Your task to perform on an android device: open app "Pinterest" (install if not already installed) Image 0: 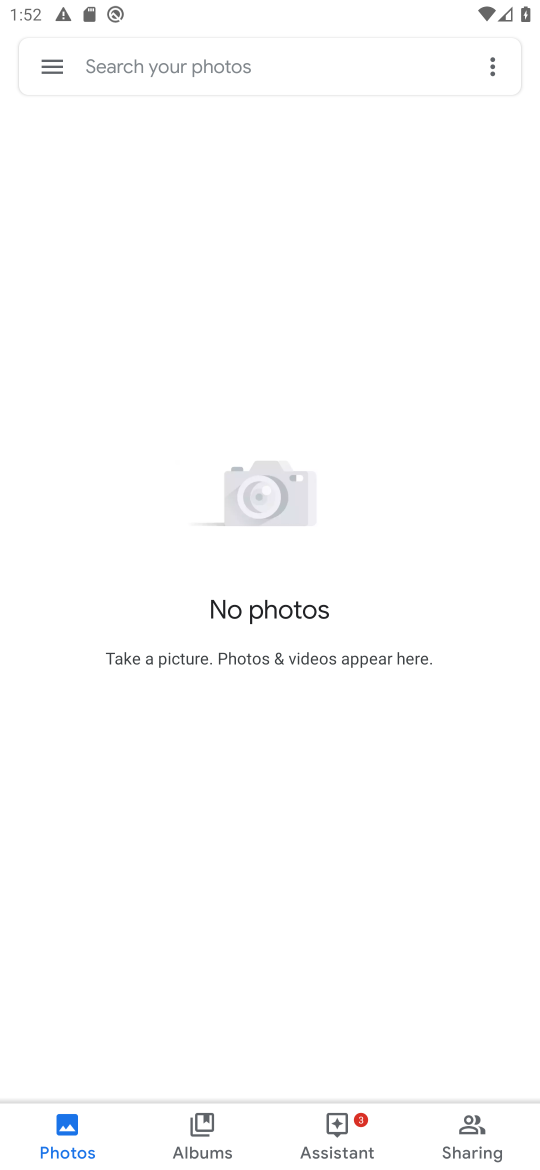
Step 0: press home button
Your task to perform on an android device: open app "Pinterest" (install if not already installed) Image 1: 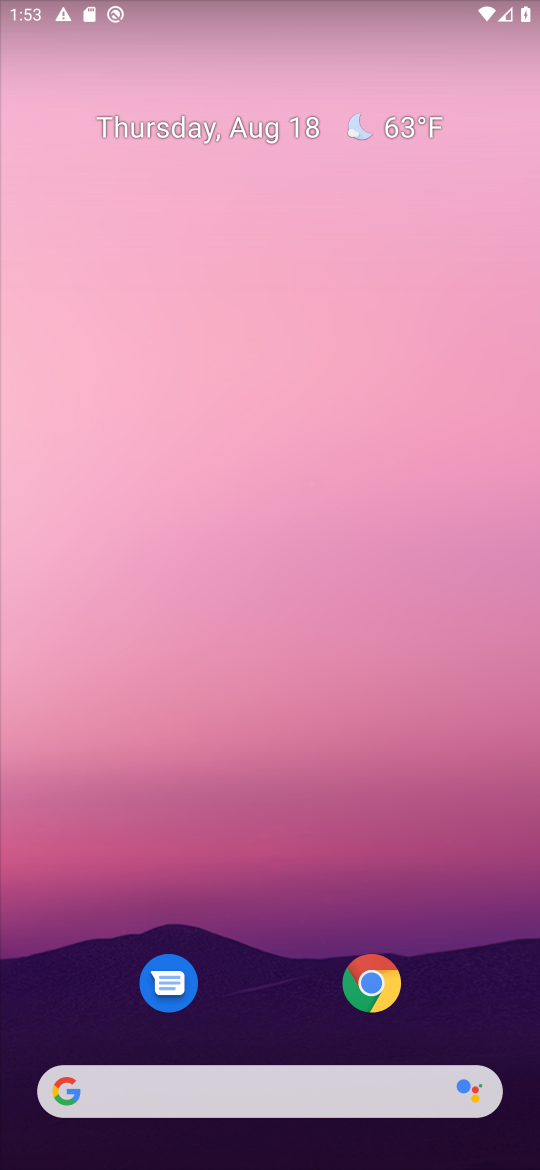
Step 1: drag from (465, 907) to (457, 338)
Your task to perform on an android device: open app "Pinterest" (install if not already installed) Image 2: 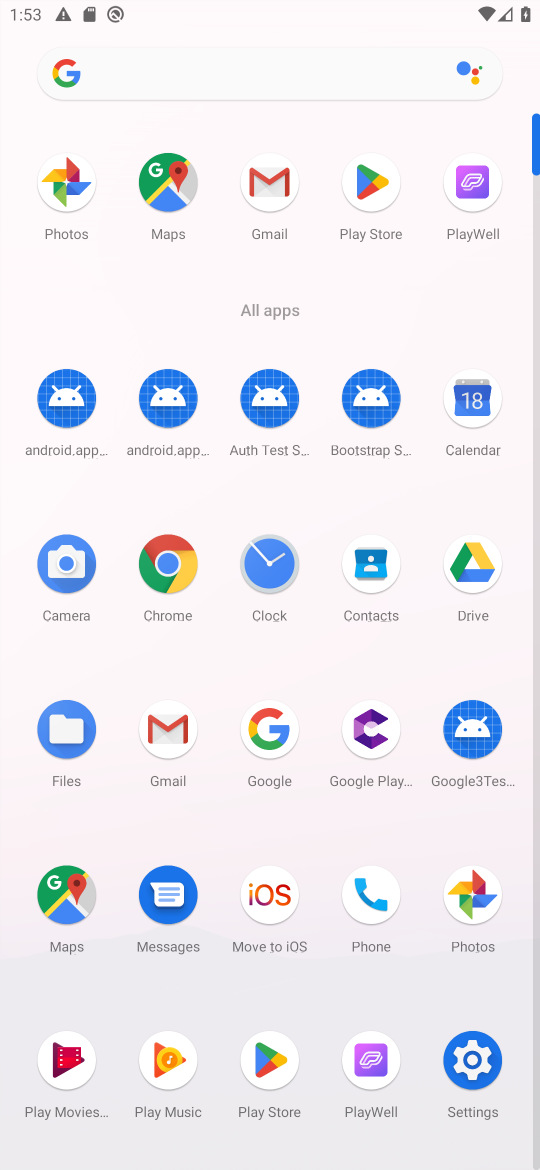
Step 2: click (273, 1054)
Your task to perform on an android device: open app "Pinterest" (install if not already installed) Image 3: 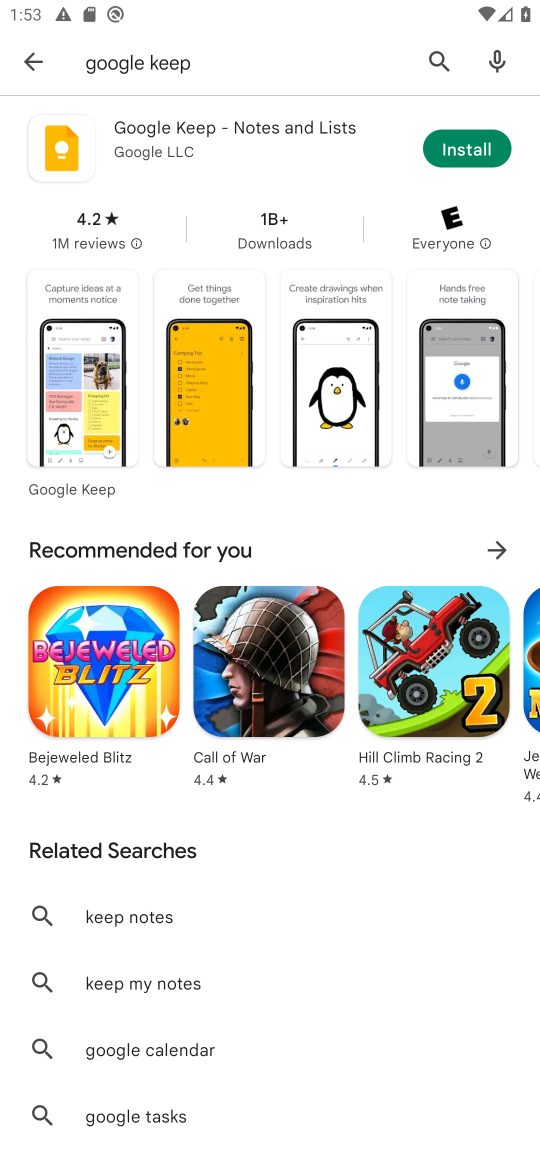
Step 3: click (440, 49)
Your task to perform on an android device: open app "Pinterest" (install if not already installed) Image 4: 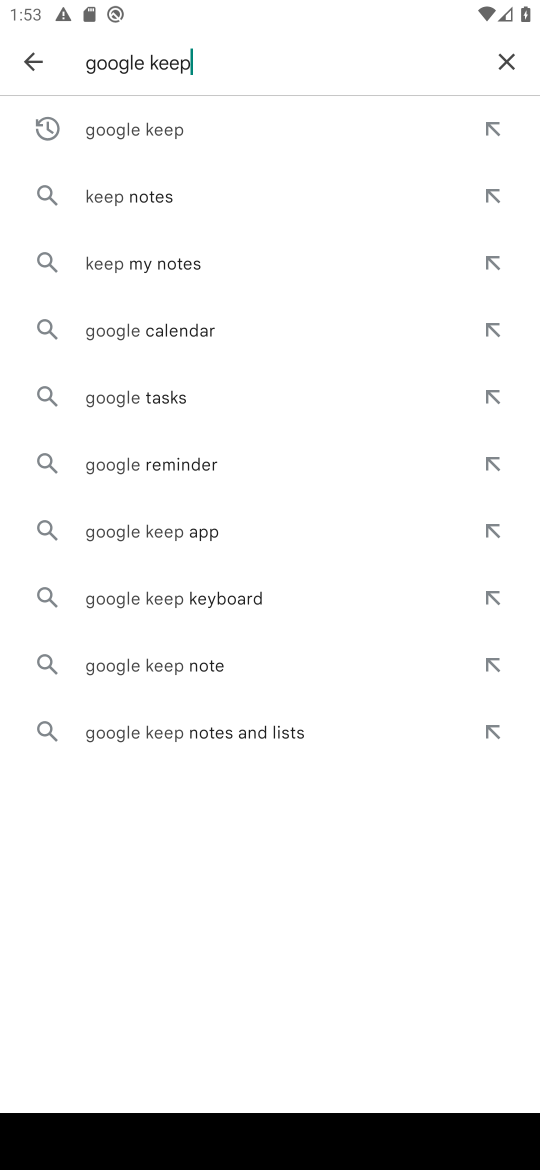
Step 4: click (514, 58)
Your task to perform on an android device: open app "Pinterest" (install if not already installed) Image 5: 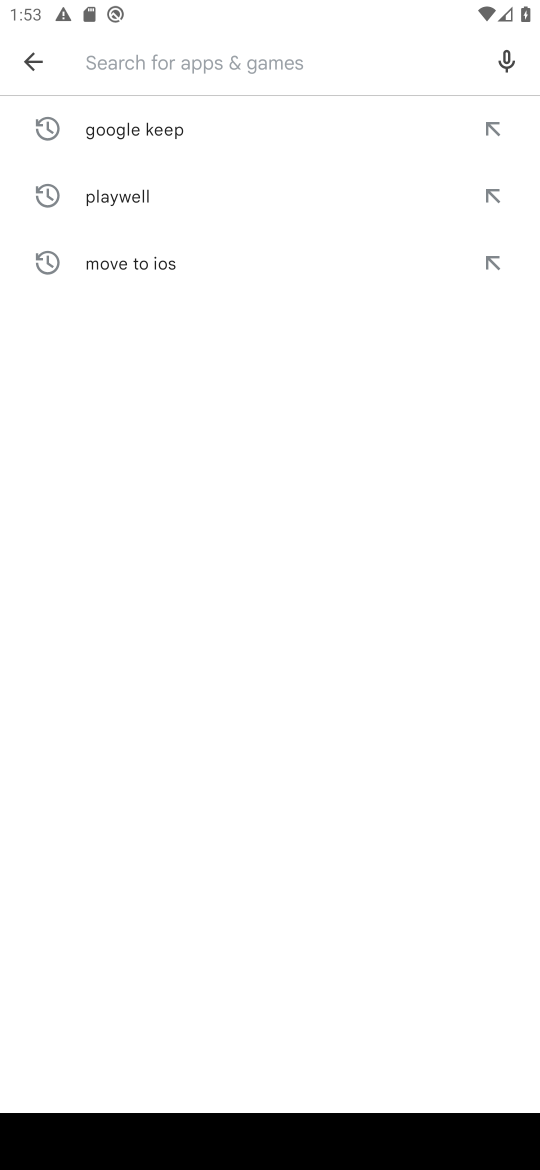
Step 5: type "pinterest"
Your task to perform on an android device: open app "Pinterest" (install if not already installed) Image 6: 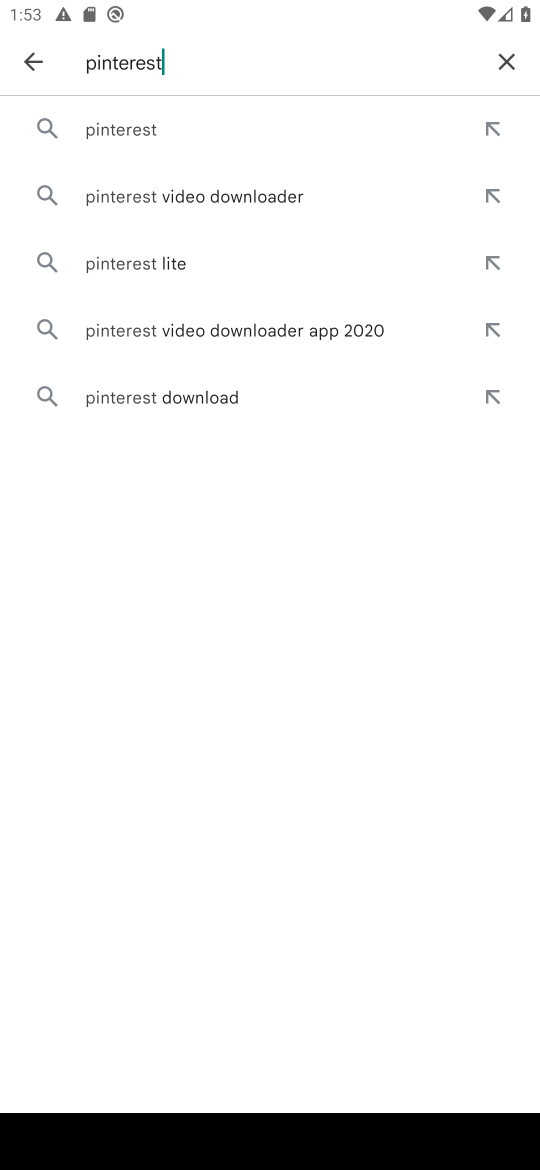
Step 6: click (138, 135)
Your task to perform on an android device: open app "Pinterest" (install if not already installed) Image 7: 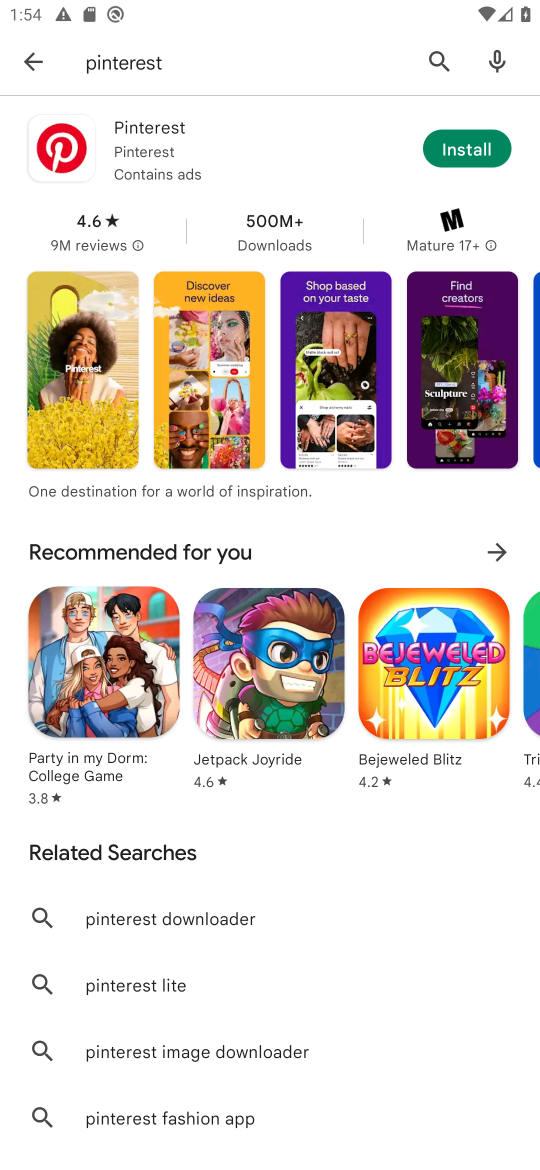
Step 7: click (468, 150)
Your task to perform on an android device: open app "Pinterest" (install if not already installed) Image 8: 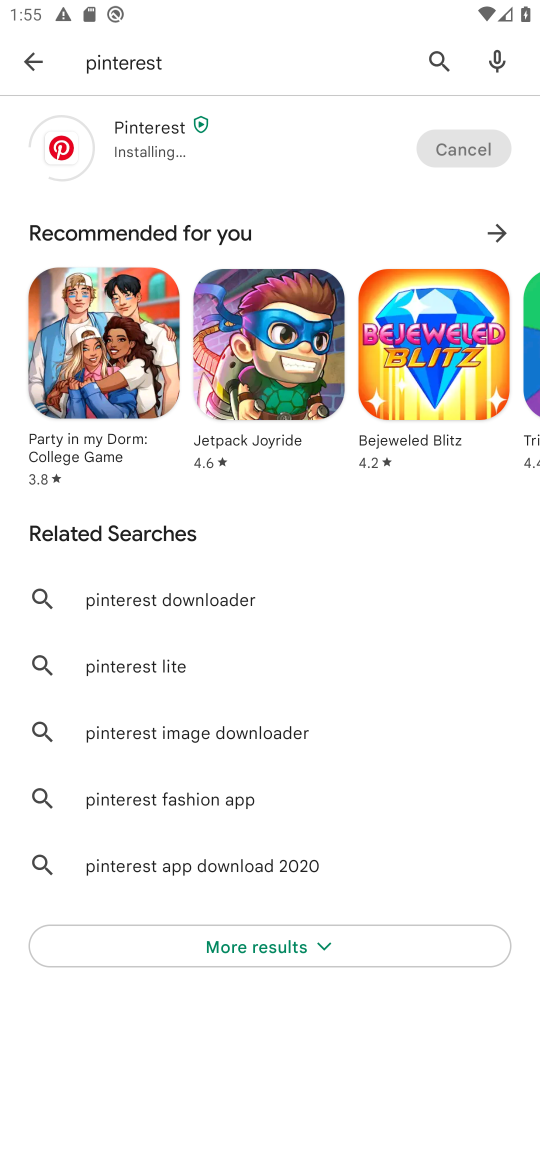
Step 8: click (264, 143)
Your task to perform on an android device: open app "Pinterest" (install if not already installed) Image 9: 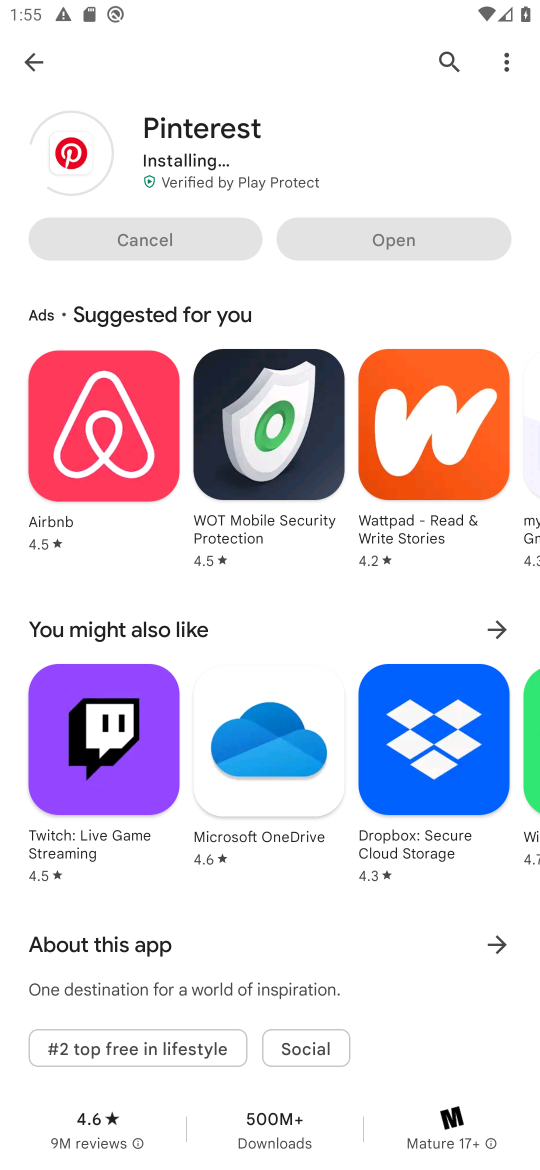
Step 9: drag from (299, 161) to (320, 540)
Your task to perform on an android device: open app "Pinterest" (install if not already installed) Image 10: 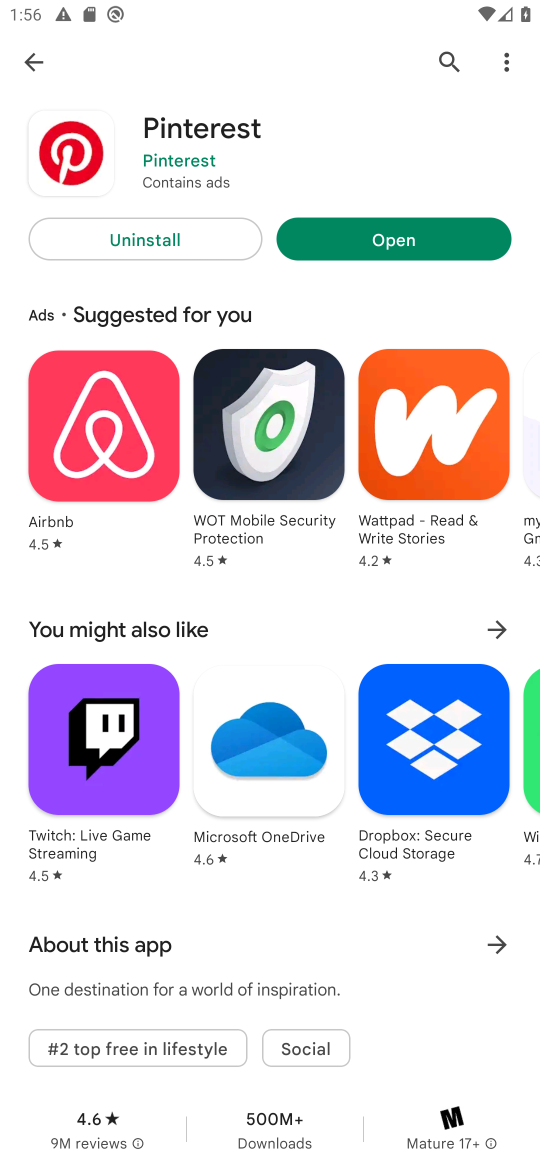
Step 10: click (387, 231)
Your task to perform on an android device: open app "Pinterest" (install if not already installed) Image 11: 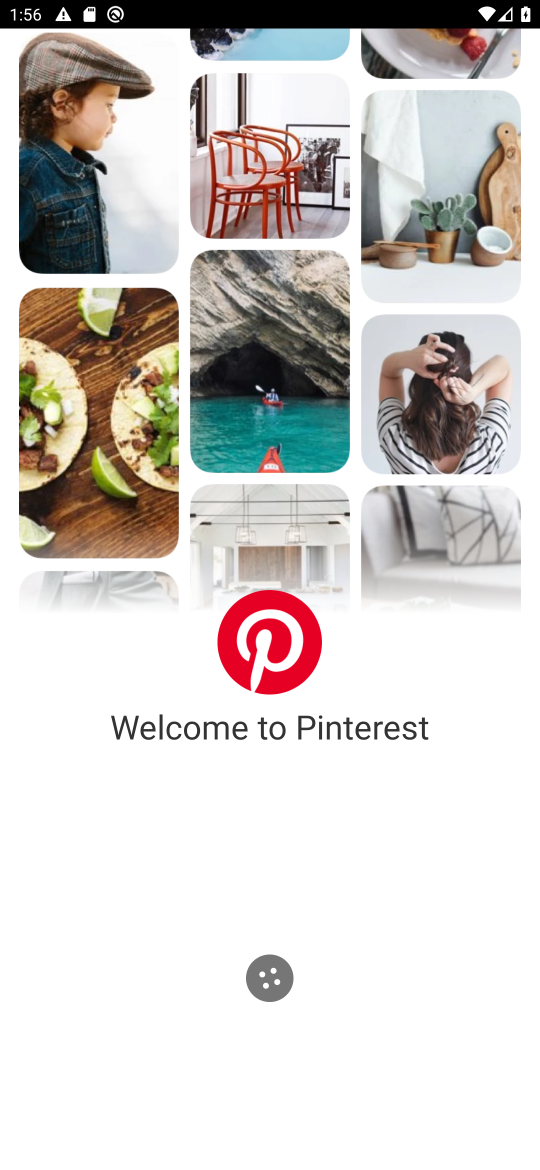
Step 11: task complete